Your task to perform on an android device: turn pop-ups off in chrome Image 0: 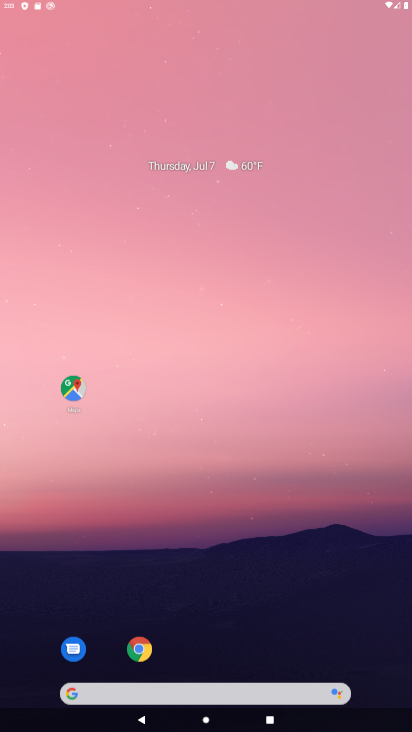
Step 0: click (247, 196)
Your task to perform on an android device: turn pop-ups off in chrome Image 1: 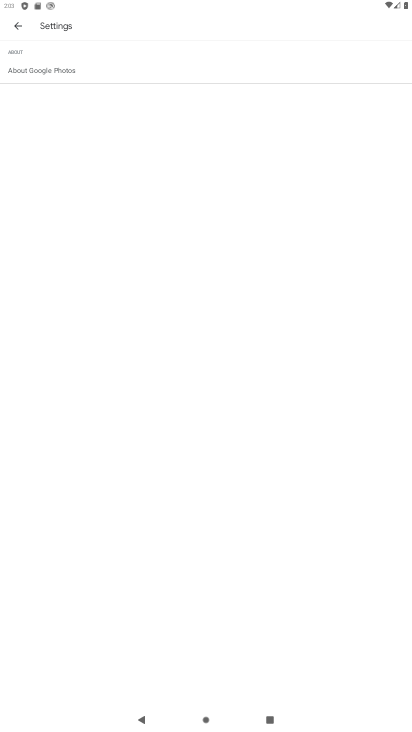
Step 1: press home button
Your task to perform on an android device: turn pop-ups off in chrome Image 2: 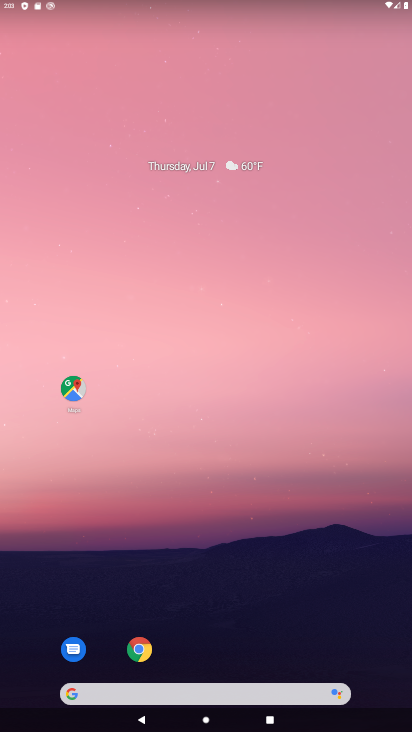
Step 2: click (141, 651)
Your task to perform on an android device: turn pop-ups off in chrome Image 3: 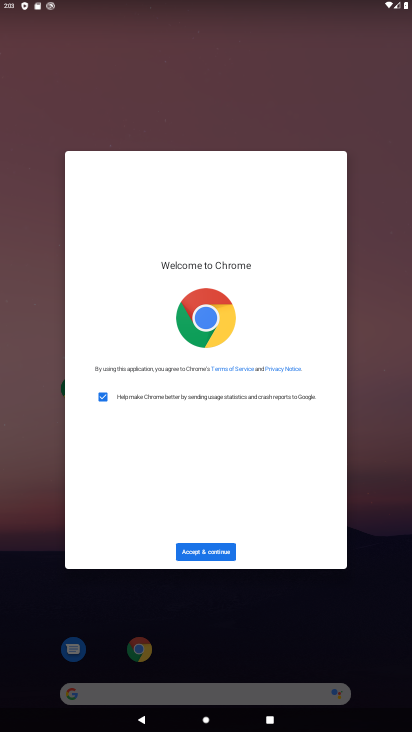
Step 3: click (193, 546)
Your task to perform on an android device: turn pop-ups off in chrome Image 4: 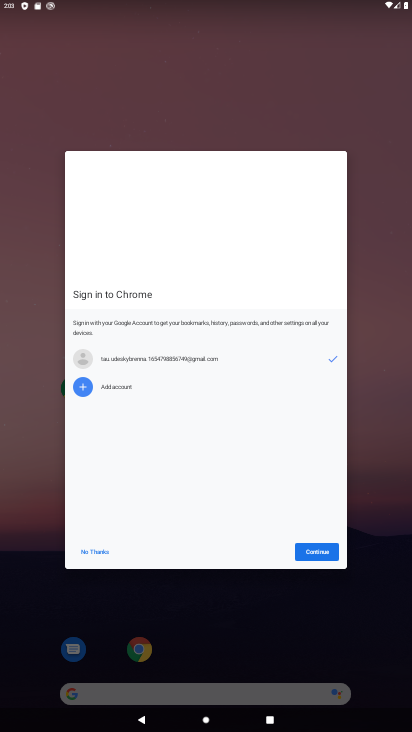
Step 4: click (316, 554)
Your task to perform on an android device: turn pop-ups off in chrome Image 5: 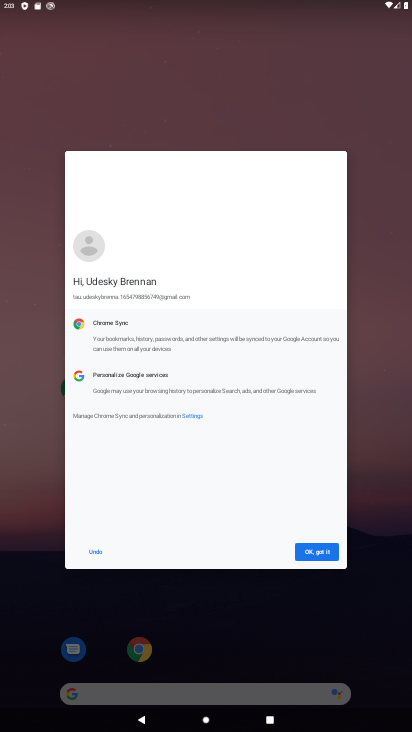
Step 5: click (311, 552)
Your task to perform on an android device: turn pop-ups off in chrome Image 6: 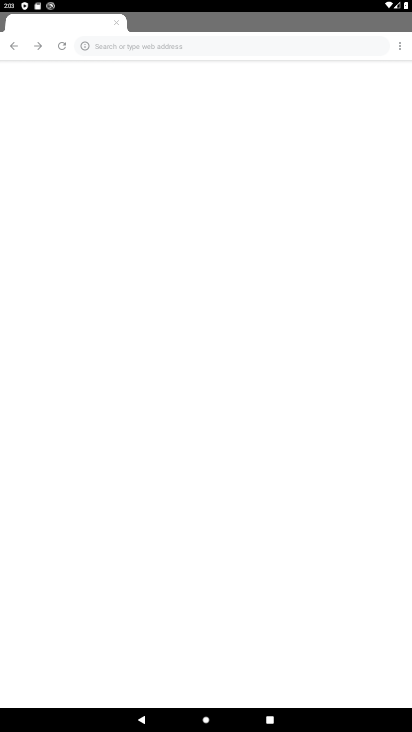
Step 6: drag from (311, 552) to (8, 442)
Your task to perform on an android device: turn pop-ups off in chrome Image 7: 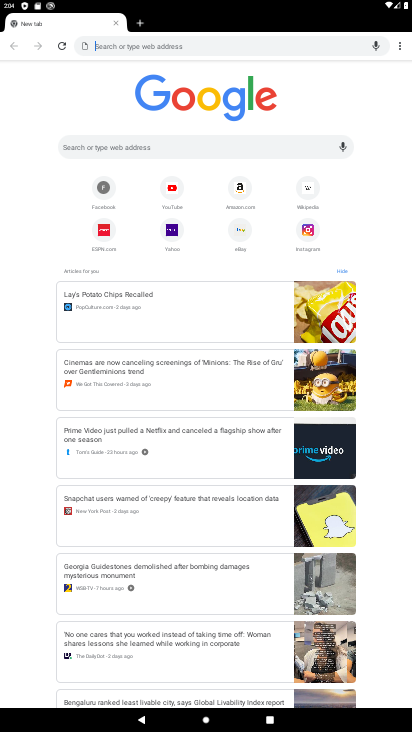
Step 7: drag from (399, 47) to (345, 203)
Your task to perform on an android device: turn pop-ups off in chrome Image 8: 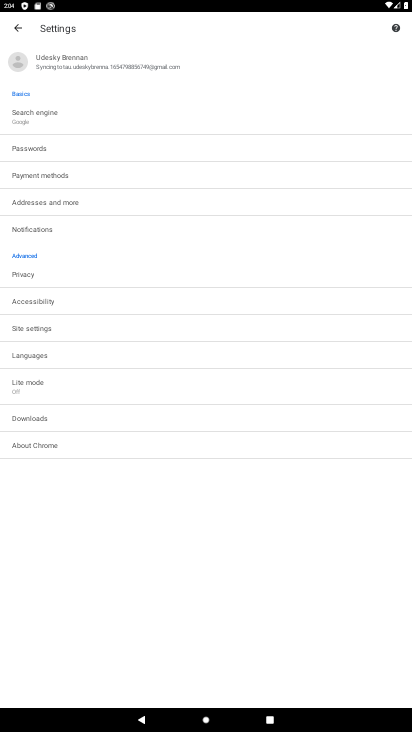
Step 8: click (64, 332)
Your task to perform on an android device: turn pop-ups off in chrome Image 9: 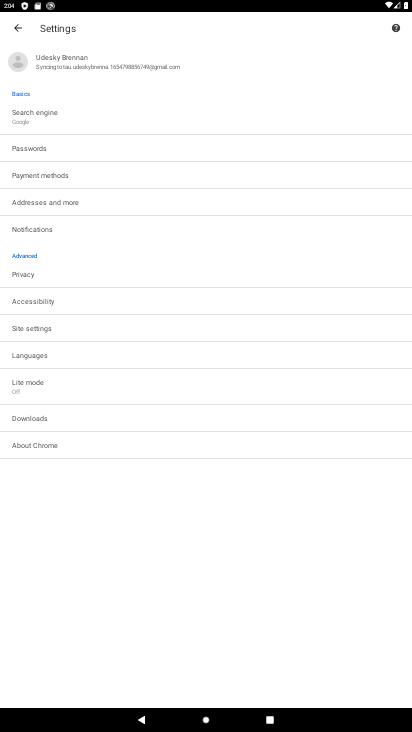
Step 9: click (64, 328)
Your task to perform on an android device: turn pop-ups off in chrome Image 10: 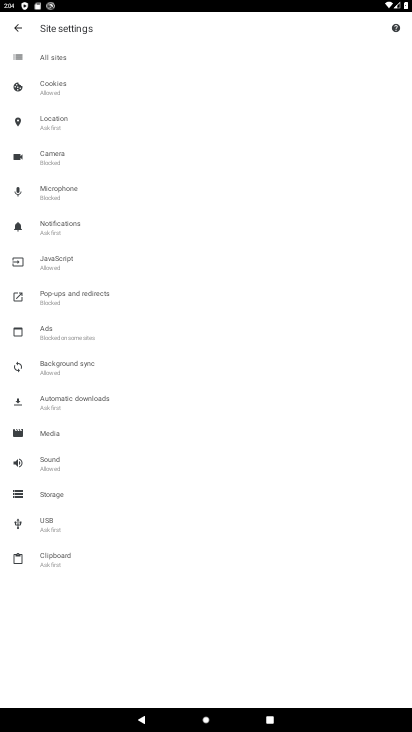
Step 10: click (102, 297)
Your task to perform on an android device: turn pop-ups off in chrome Image 11: 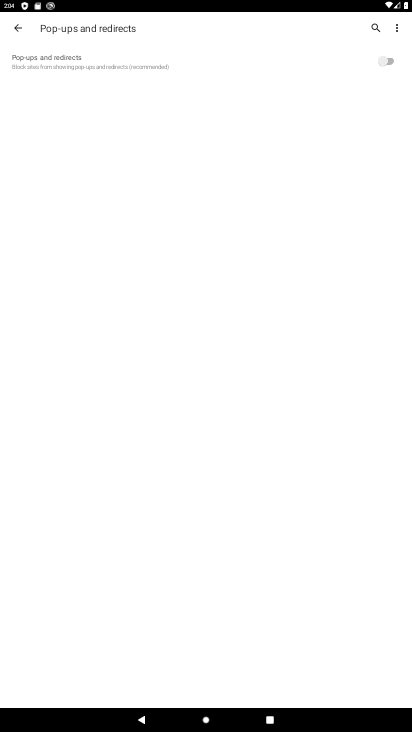
Step 11: task complete